Your task to perform on an android device: change notifications settings Image 0: 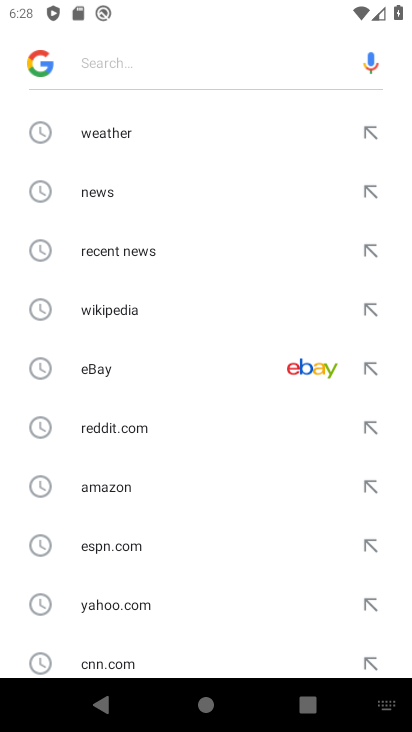
Step 0: press home button
Your task to perform on an android device: change notifications settings Image 1: 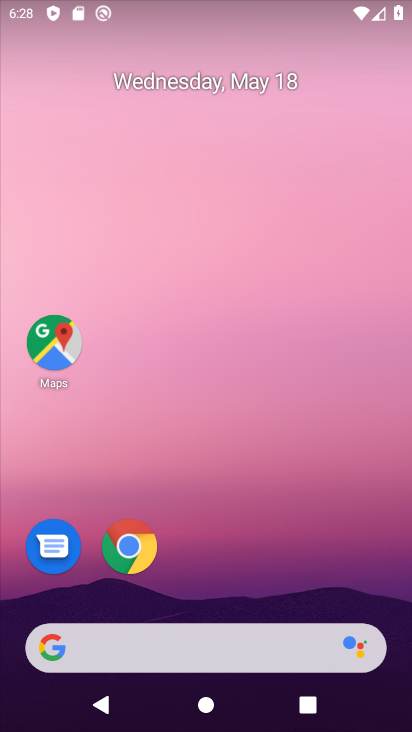
Step 1: drag from (356, 569) to (328, 222)
Your task to perform on an android device: change notifications settings Image 2: 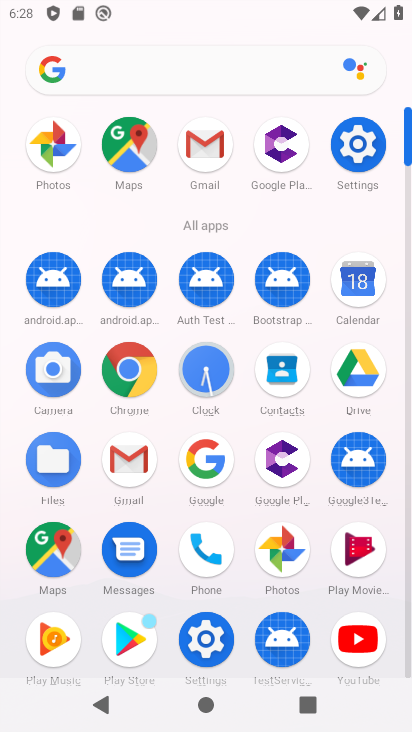
Step 2: click (357, 159)
Your task to perform on an android device: change notifications settings Image 3: 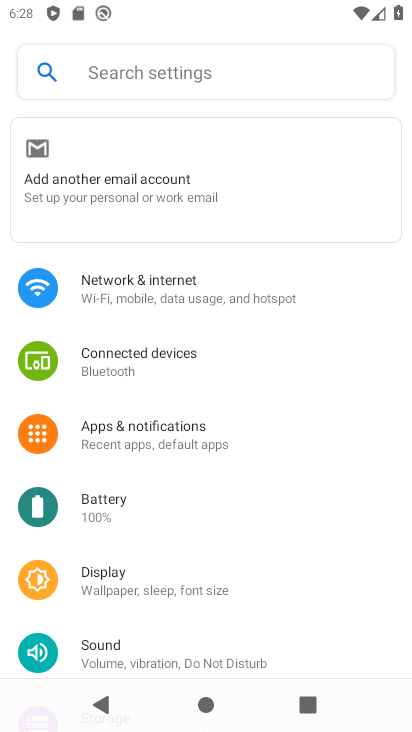
Step 3: click (175, 431)
Your task to perform on an android device: change notifications settings Image 4: 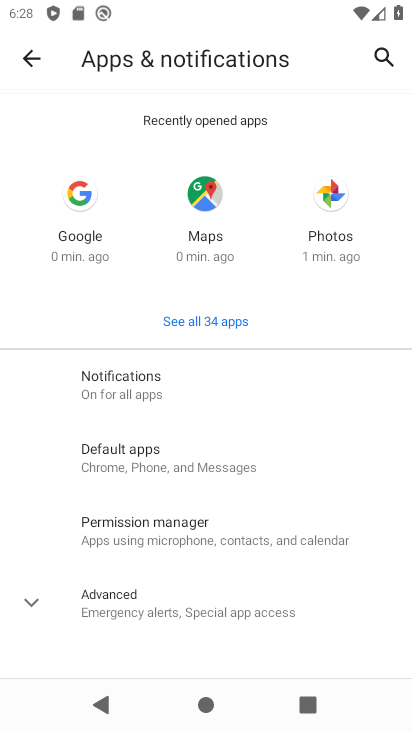
Step 4: click (180, 405)
Your task to perform on an android device: change notifications settings Image 5: 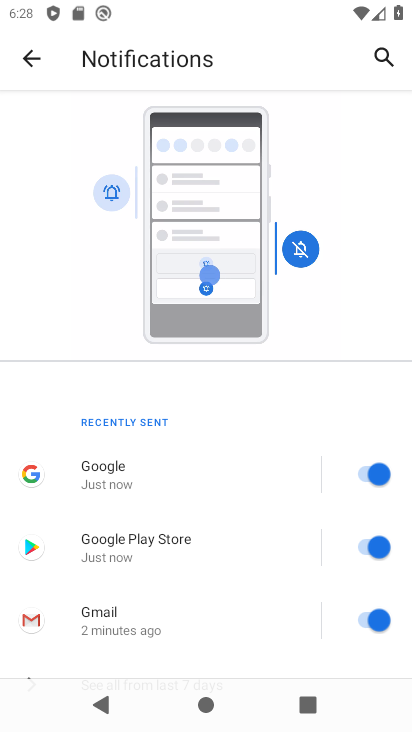
Step 5: task complete